Your task to perform on an android device: set the stopwatch Image 0: 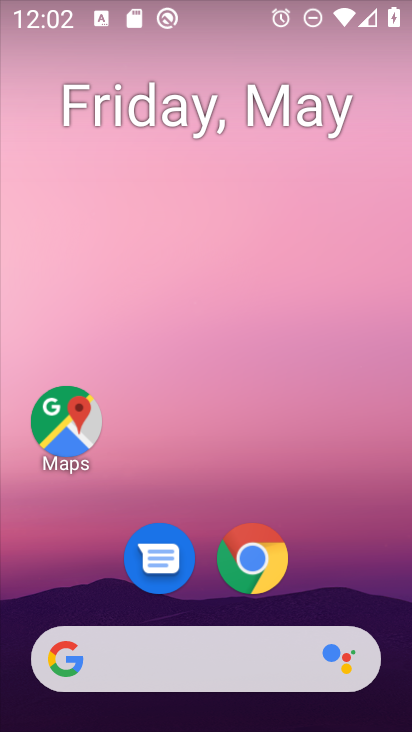
Step 0: drag from (381, 611) to (352, 93)
Your task to perform on an android device: set the stopwatch Image 1: 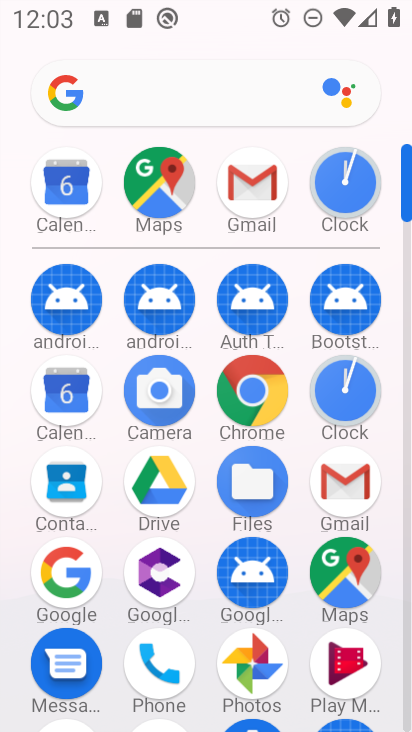
Step 1: click (337, 389)
Your task to perform on an android device: set the stopwatch Image 2: 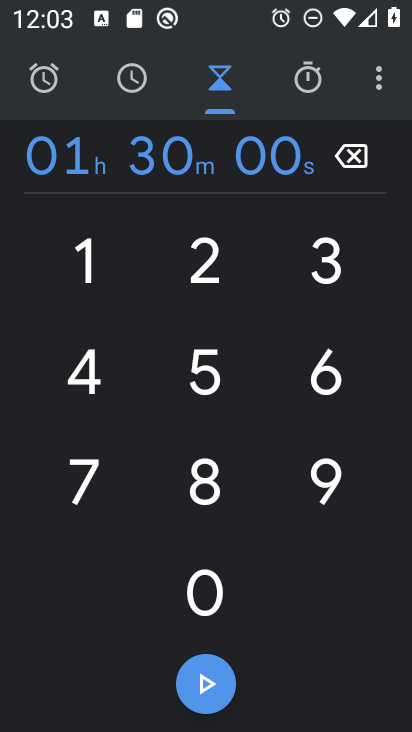
Step 2: click (308, 92)
Your task to perform on an android device: set the stopwatch Image 3: 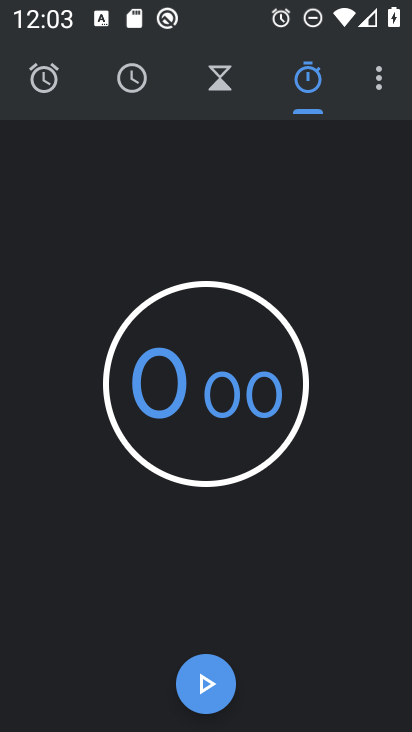
Step 3: task complete